Your task to perform on an android device: Go to internet settings Image 0: 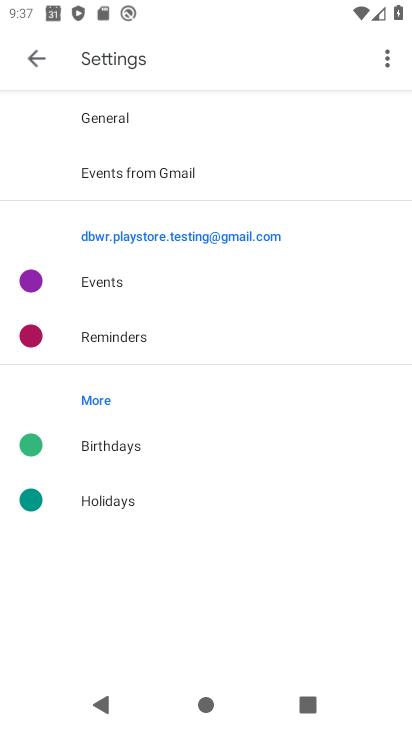
Step 0: press home button
Your task to perform on an android device: Go to internet settings Image 1: 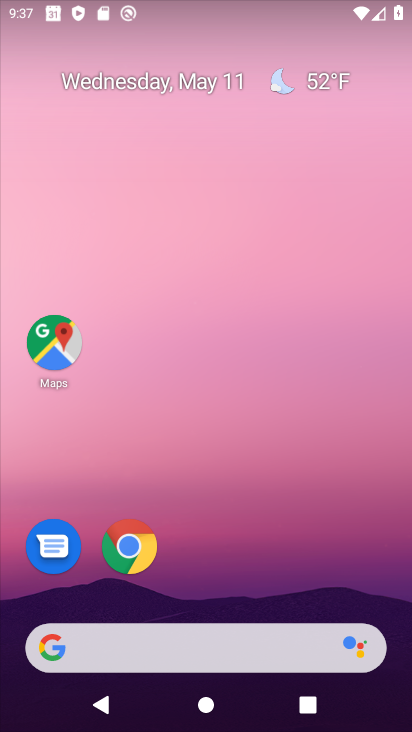
Step 1: drag from (169, 640) to (101, 180)
Your task to perform on an android device: Go to internet settings Image 2: 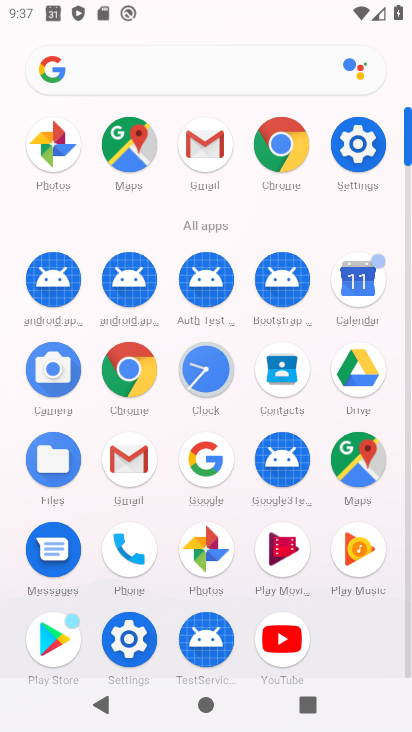
Step 2: click (345, 141)
Your task to perform on an android device: Go to internet settings Image 3: 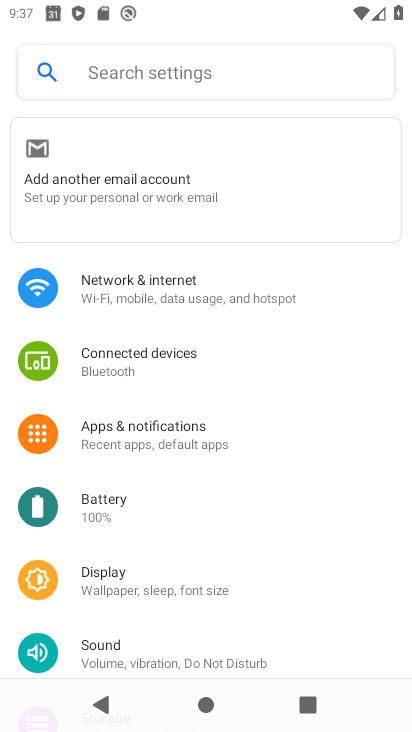
Step 3: click (150, 291)
Your task to perform on an android device: Go to internet settings Image 4: 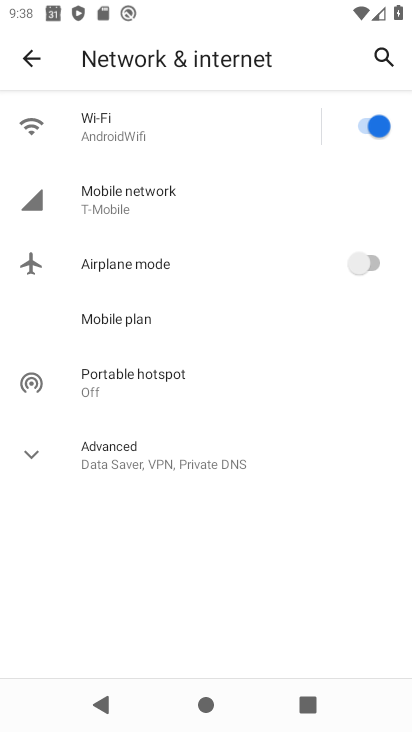
Step 4: task complete